Your task to perform on an android device: check android version Image 0: 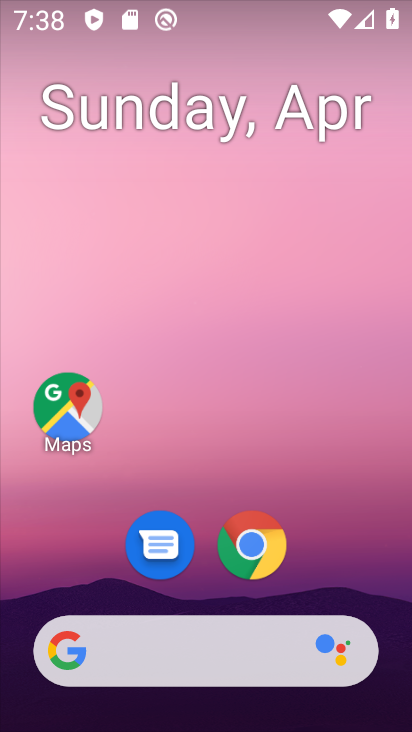
Step 0: drag from (285, 619) to (306, 241)
Your task to perform on an android device: check android version Image 1: 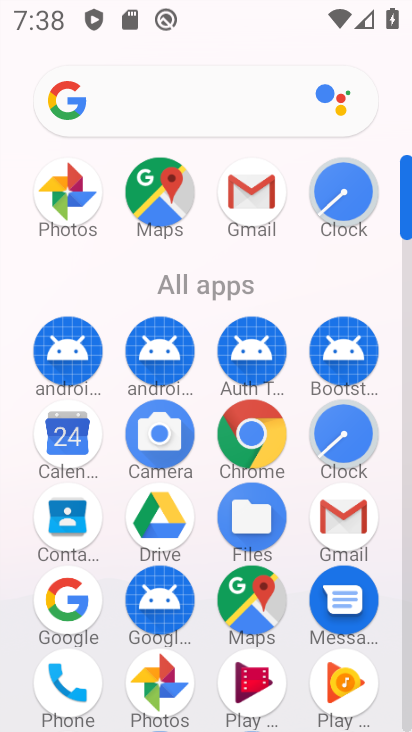
Step 1: click (292, 626)
Your task to perform on an android device: check android version Image 2: 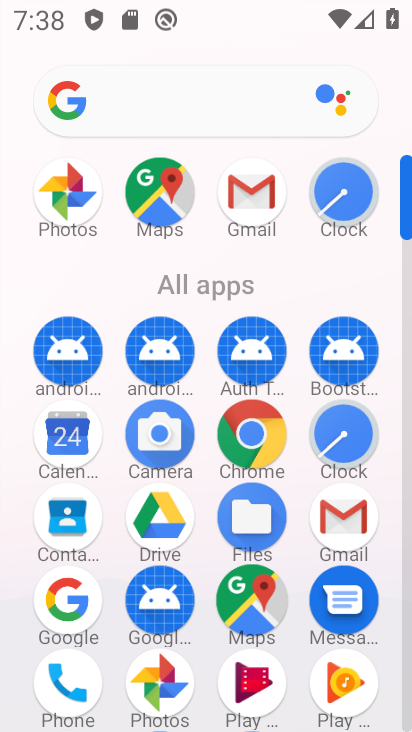
Step 2: drag from (293, 463) to (318, 248)
Your task to perform on an android device: check android version Image 3: 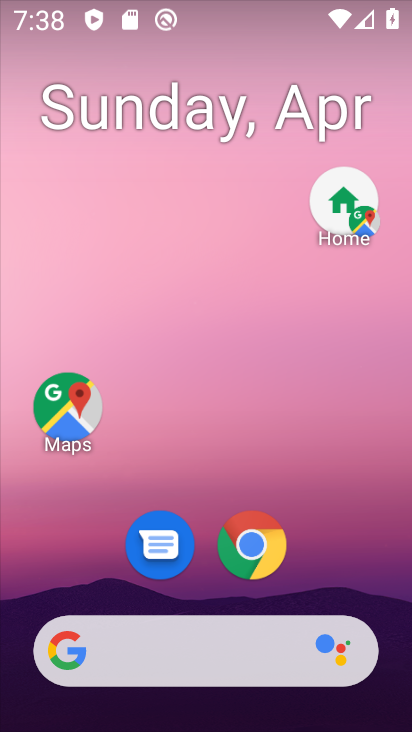
Step 3: drag from (299, 567) to (315, 155)
Your task to perform on an android device: check android version Image 4: 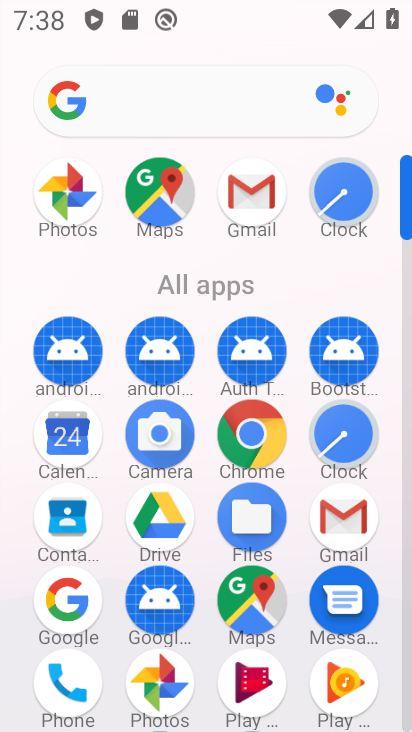
Step 4: drag from (289, 654) to (290, 475)
Your task to perform on an android device: check android version Image 5: 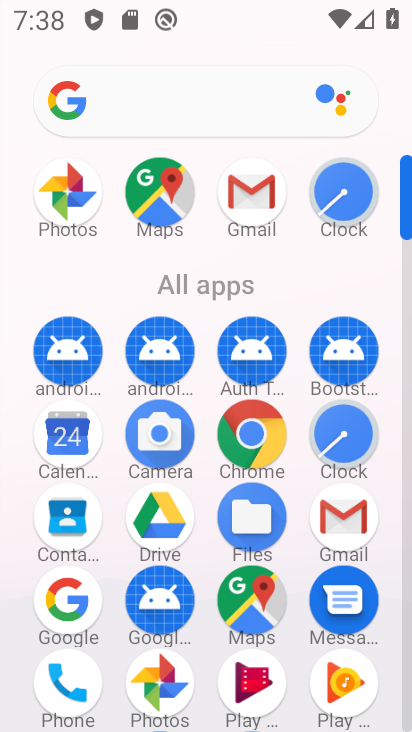
Step 5: click (333, 126)
Your task to perform on an android device: check android version Image 6: 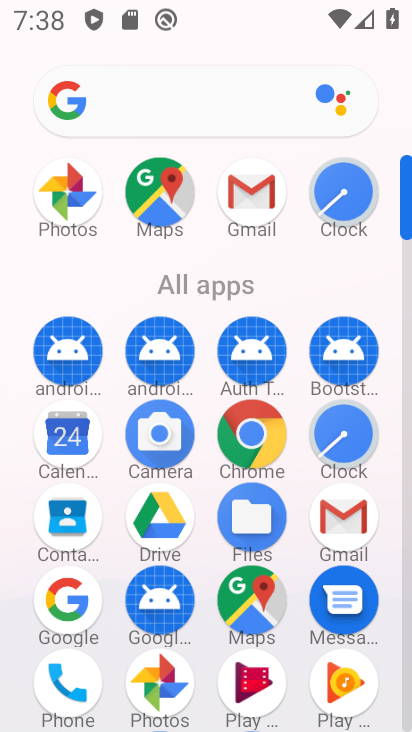
Step 6: drag from (216, 490) to (290, 247)
Your task to perform on an android device: check android version Image 7: 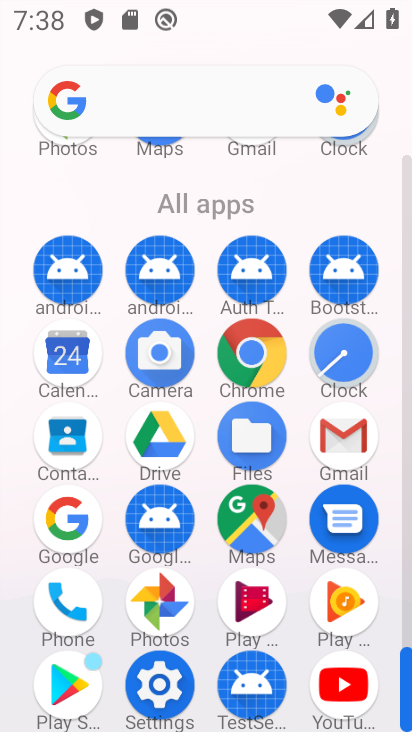
Step 7: click (156, 681)
Your task to perform on an android device: check android version Image 8: 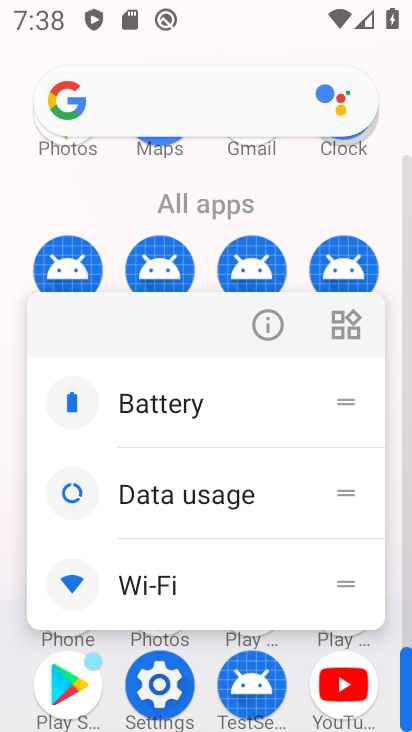
Step 8: click (151, 681)
Your task to perform on an android device: check android version Image 9: 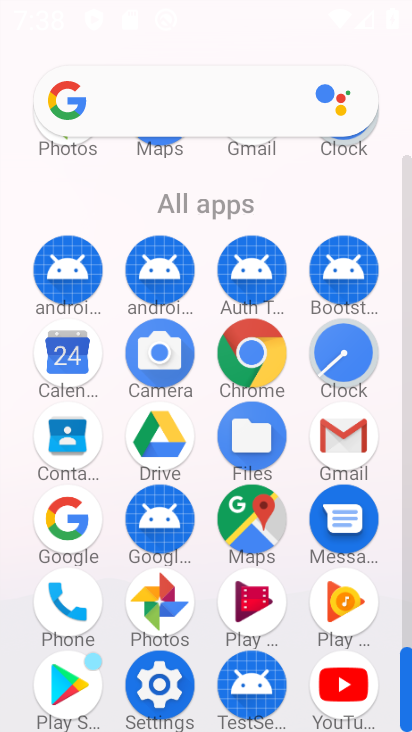
Step 9: click (151, 681)
Your task to perform on an android device: check android version Image 10: 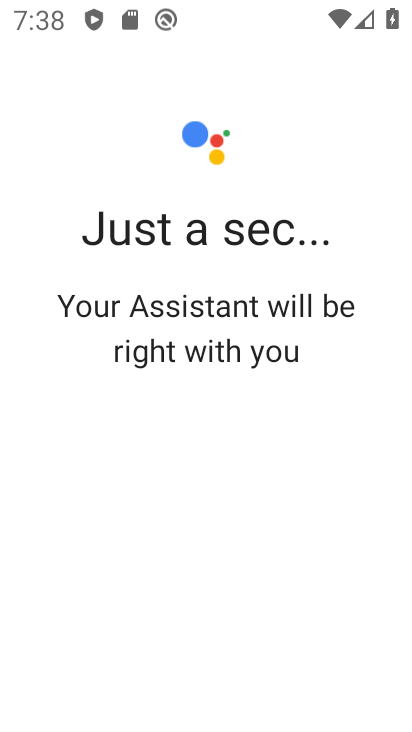
Step 10: click (379, 89)
Your task to perform on an android device: check android version Image 11: 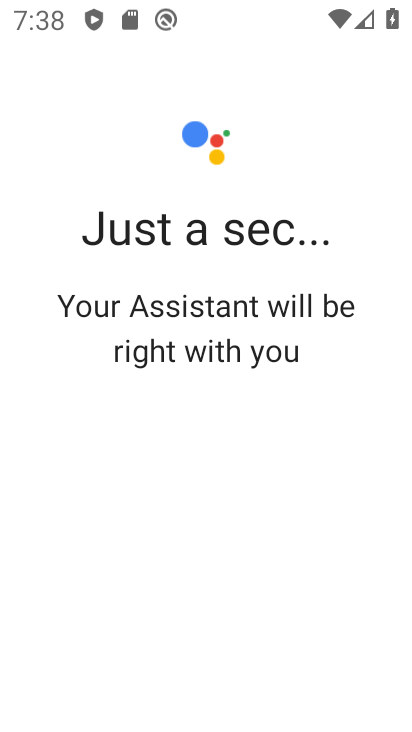
Step 11: press back button
Your task to perform on an android device: check android version Image 12: 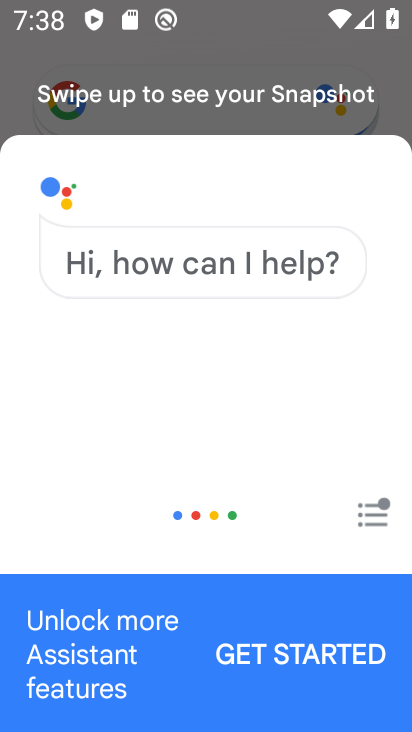
Step 12: press back button
Your task to perform on an android device: check android version Image 13: 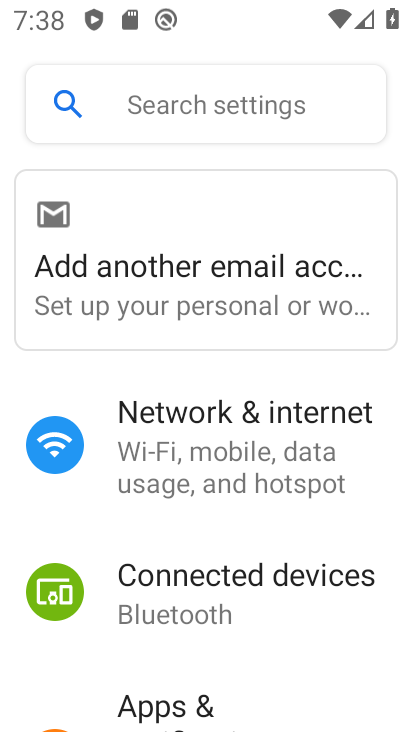
Step 13: click (267, 663)
Your task to perform on an android device: check android version Image 14: 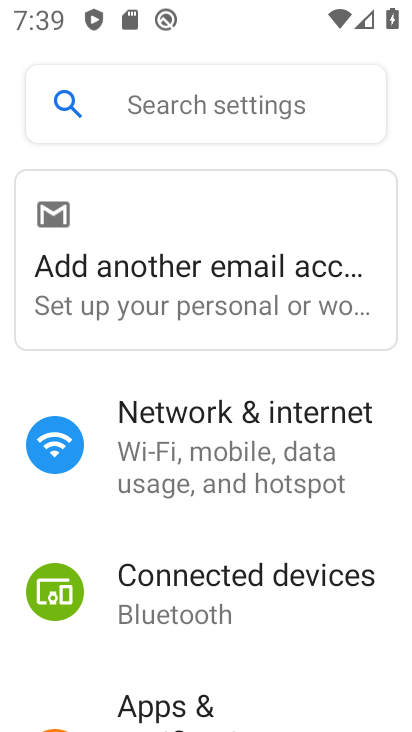
Step 14: drag from (319, 13) to (318, 210)
Your task to perform on an android device: check android version Image 15: 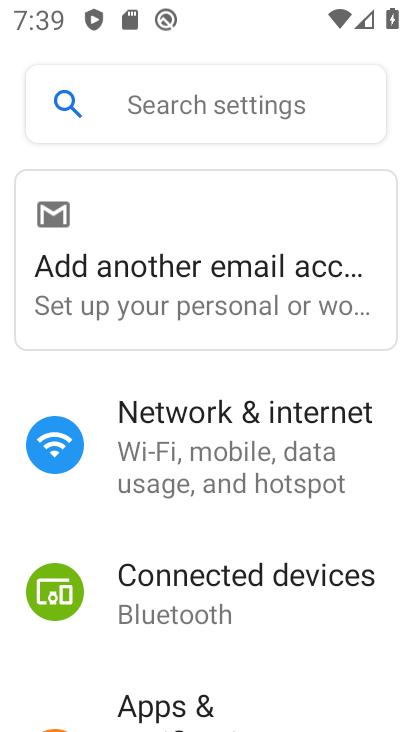
Step 15: drag from (312, 656) to (411, 82)
Your task to perform on an android device: check android version Image 16: 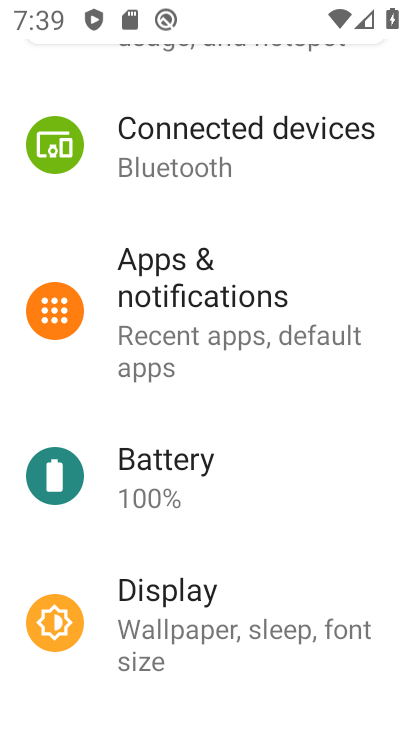
Step 16: click (207, 595)
Your task to perform on an android device: check android version Image 17: 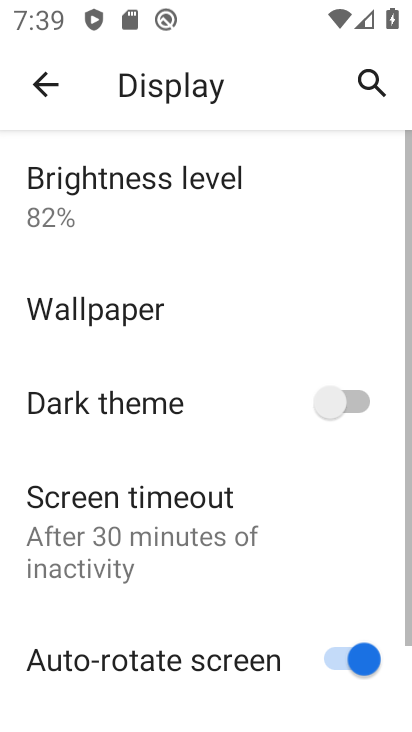
Step 17: drag from (299, 541) to (330, 343)
Your task to perform on an android device: check android version Image 18: 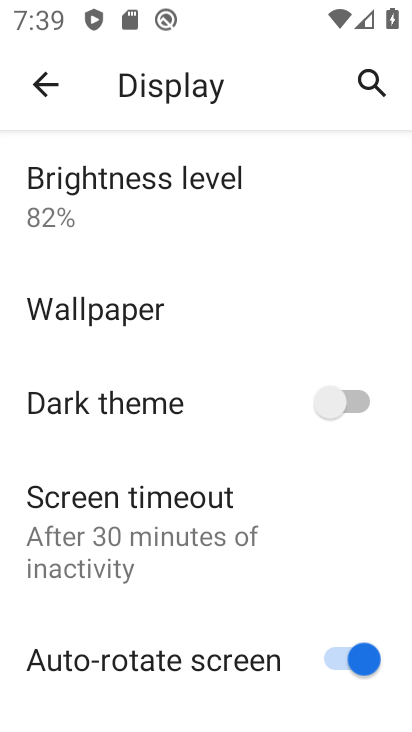
Step 18: press back button
Your task to perform on an android device: check android version Image 19: 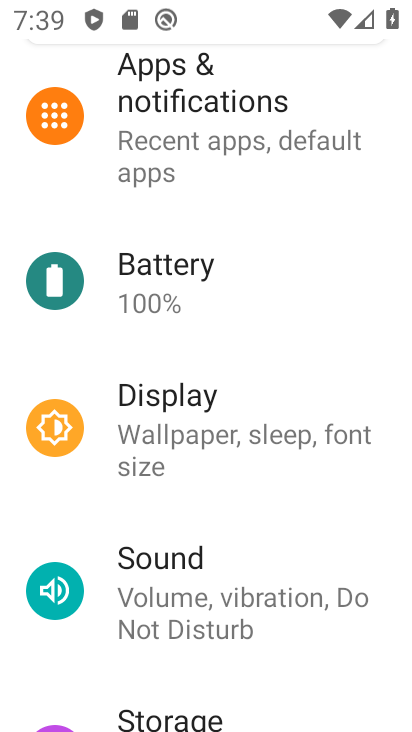
Step 19: click (210, 584)
Your task to perform on an android device: check android version Image 20: 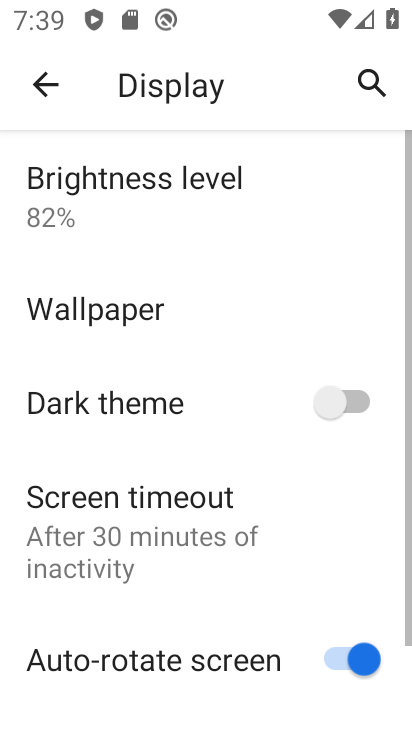
Step 20: click (311, 24)
Your task to perform on an android device: check android version Image 21: 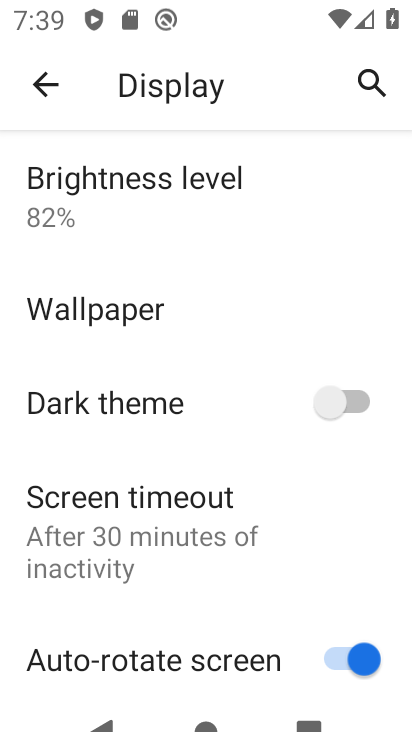
Step 21: press back button
Your task to perform on an android device: check android version Image 22: 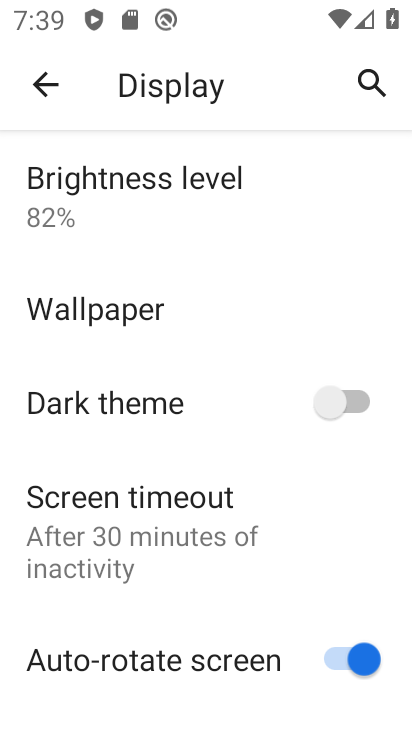
Step 22: press back button
Your task to perform on an android device: check android version Image 23: 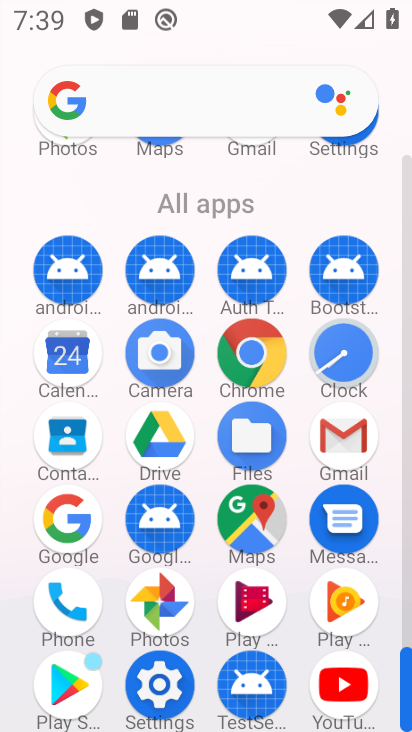
Step 23: click (155, 675)
Your task to perform on an android device: check android version Image 24: 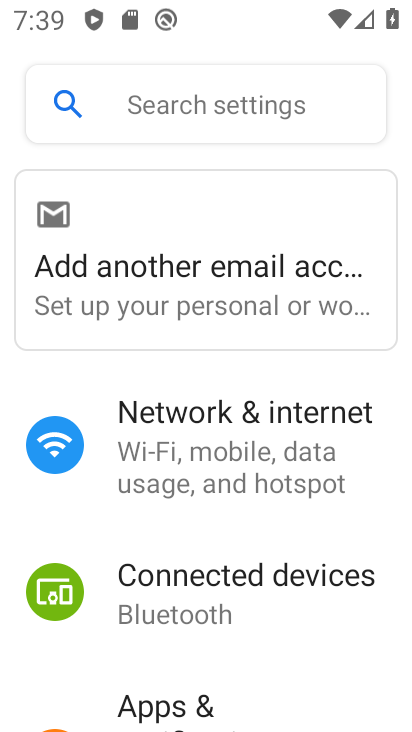
Step 24: drag from (269, 663) to (306, 482)
Your task to perform on an android device: check android version Image 25: 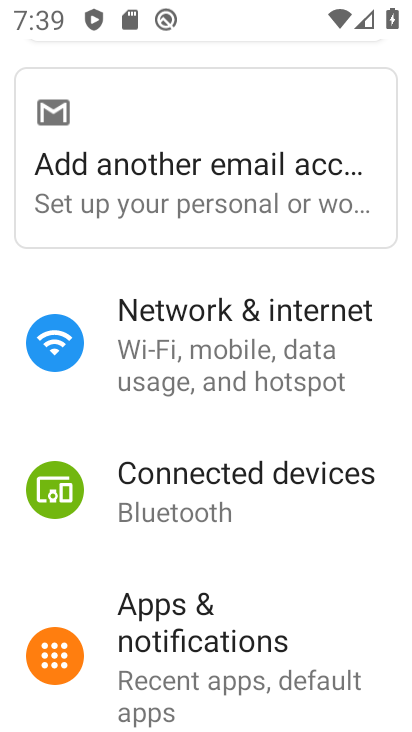
Step 25: click (355, 55)
Your task to perform on an android device: check android version Image 26: 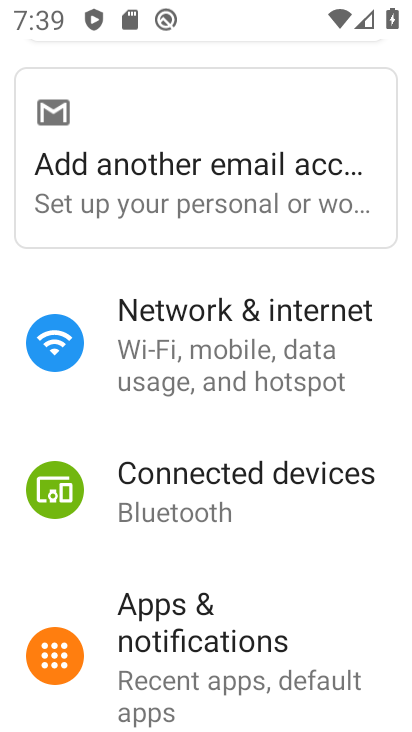
Step 26: drag from (321, 663) to (356, 330)
Your task to perform on an android device: check android version Image 27: 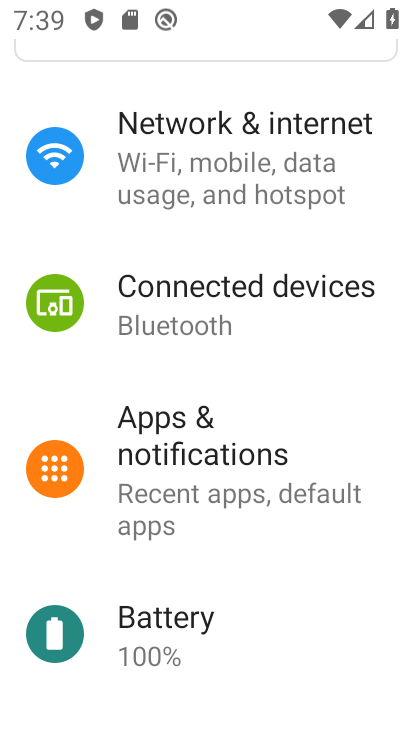
Step 27: click (360, 56)
Your task to perform on an android device: check android version Image 28: 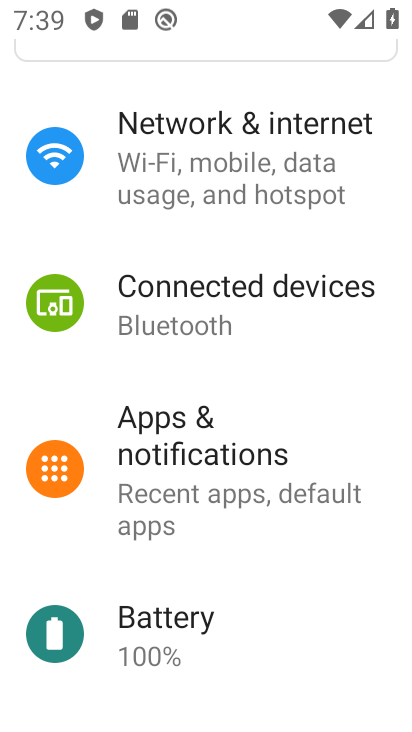
Step 28: drag from (187, 668) to (222, 196)
Your task to perform on an android device: check android version Image 29: 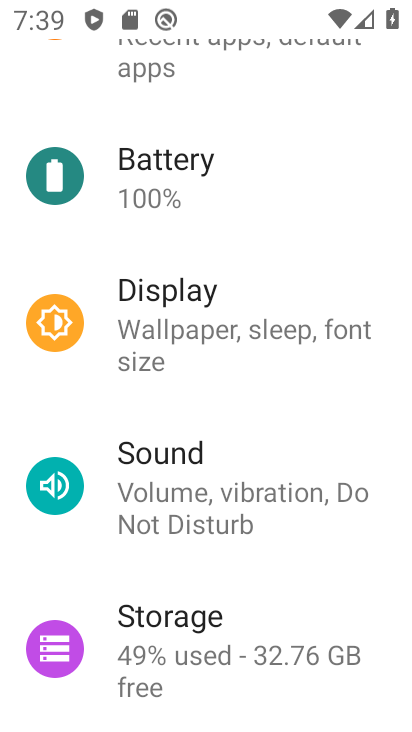
Step 29: click (148, 684)
Your task to perform on an android device: check android version Image 30: 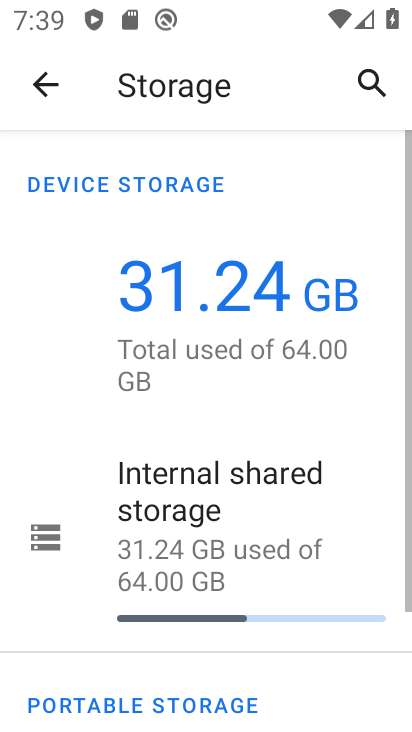
Step 30: click (304, 27)
Your task to perform on an android device: check android version Image 31: 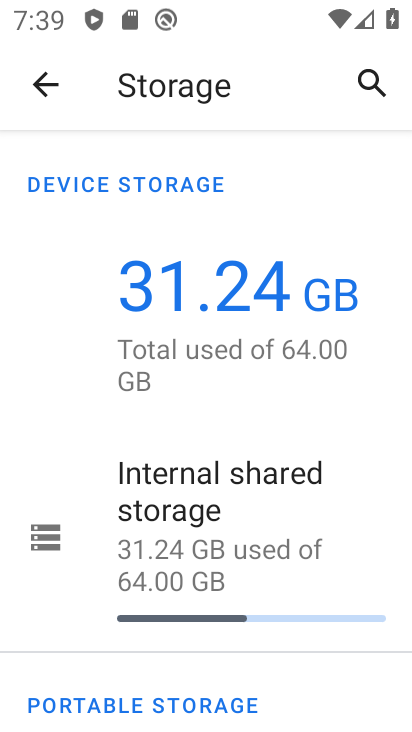
Step 31: press back button
Your task to perform on an android device: check android version Image 32: 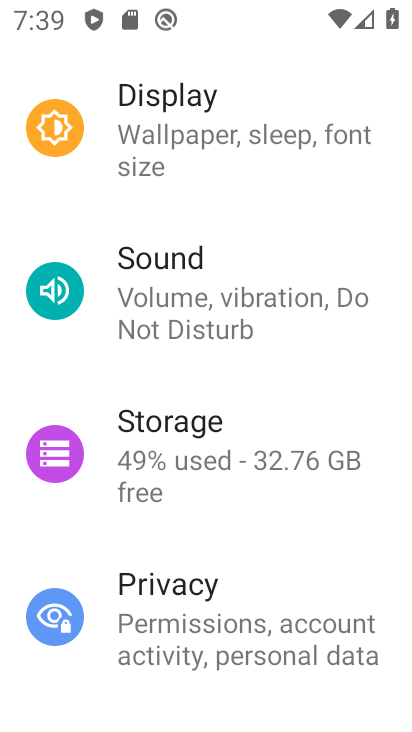
Step 32: click (293, 671)
Your task to perform on an android device: check android version Image 33: 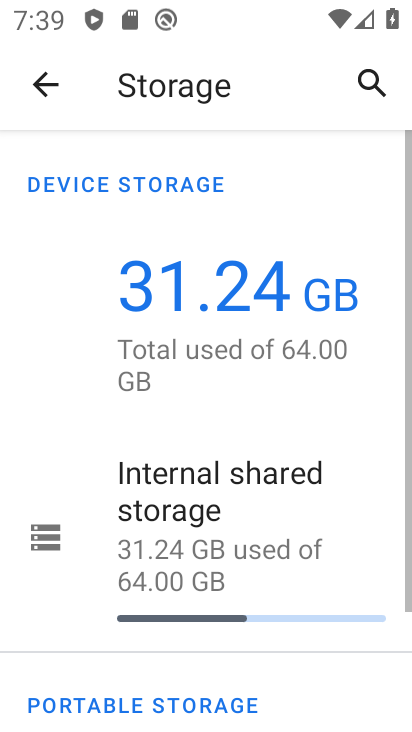
Step 33: click (353, 101)
Your task to perform on an android device: check android version Image 34: 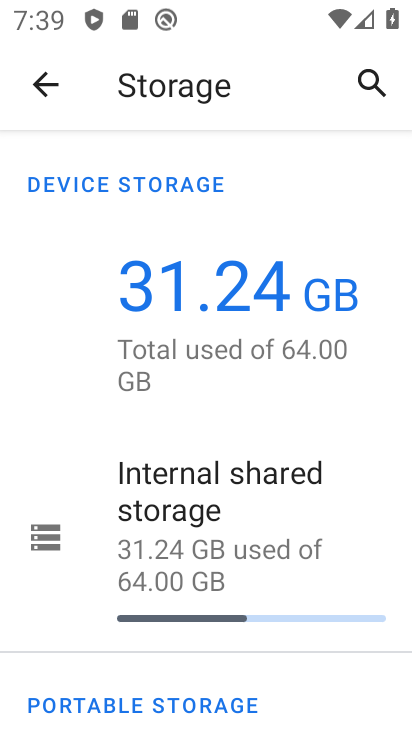
Step 34: press back button
Your task to perform on an android device: check android version Image 35: 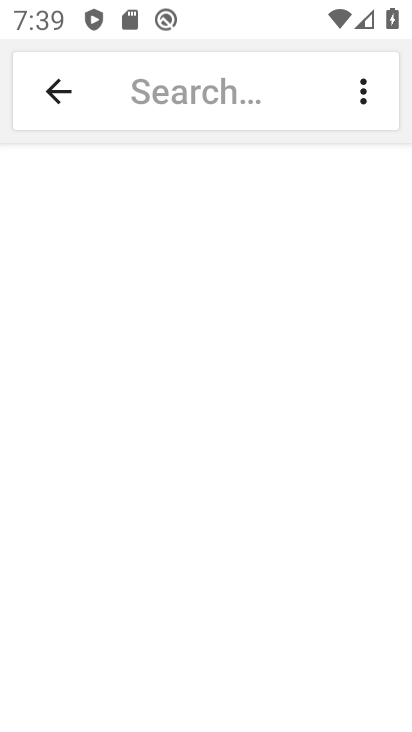
Step 35: press back button
Your task to perform on an android device: check android version Image 36: 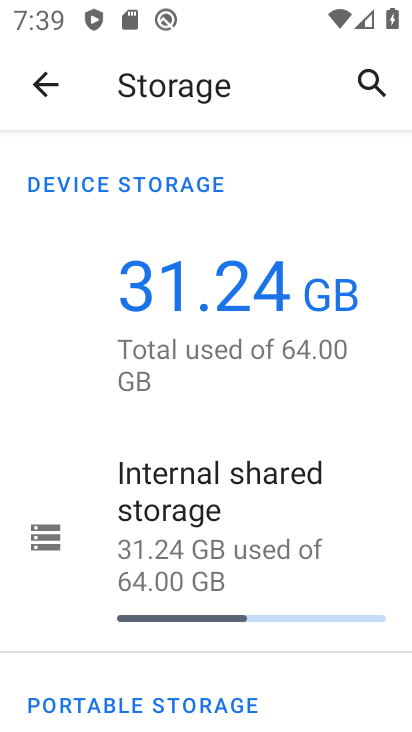
Step 36: press back button
Your task to perform on an android device: check android version Image 37: 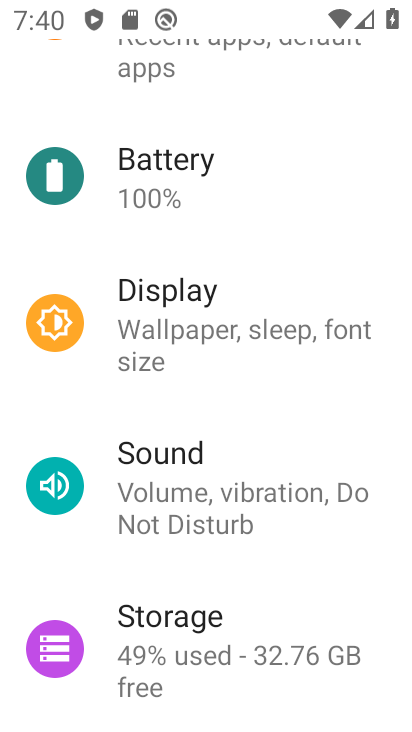
Step 37: click (137, 678)
Your task to perform on an android device: check android version Image 38: 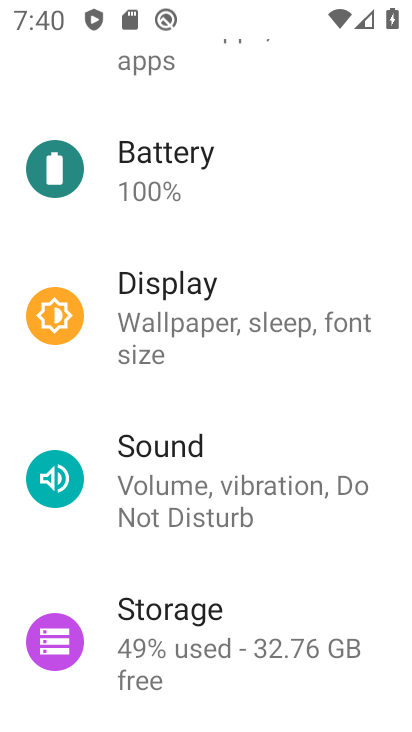
Step 38: click (289, 72)
Your task to perform on an android device: check android version Image 39: 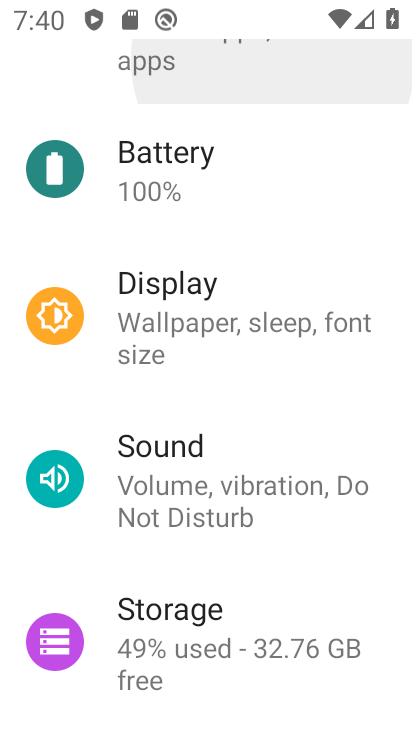
Step 39: drag from (247, 549) to (284, 202)
Your task to perform on an android device: check android version Image 40: 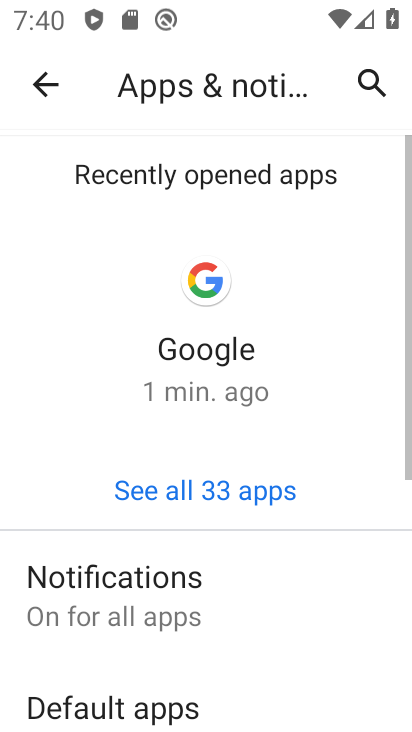
Step 40: press back button
Your task to perform on an android device: check android version Image 41: 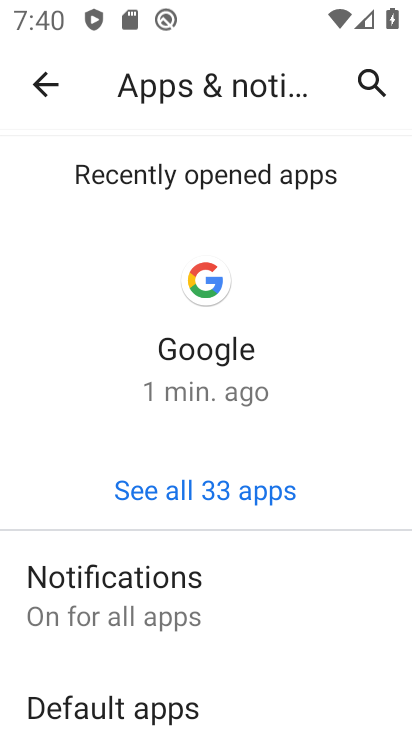
Step 41: press back button
Your task to perform on an android device: check android version Image 42: 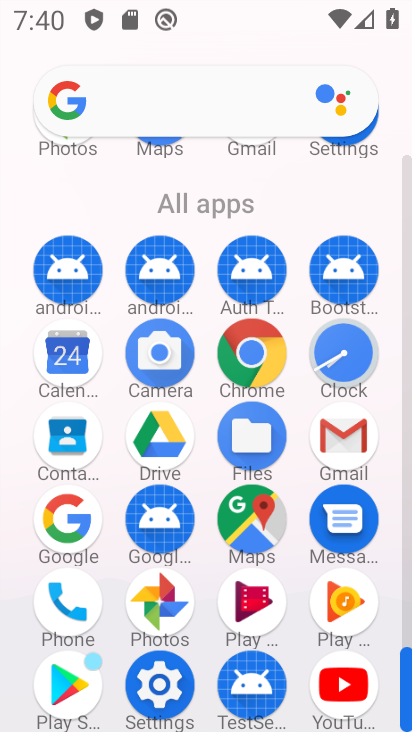
Step 42: drag from (212, 665) to (265, 437)
Your task to perform on an android device: check android version Image 43: 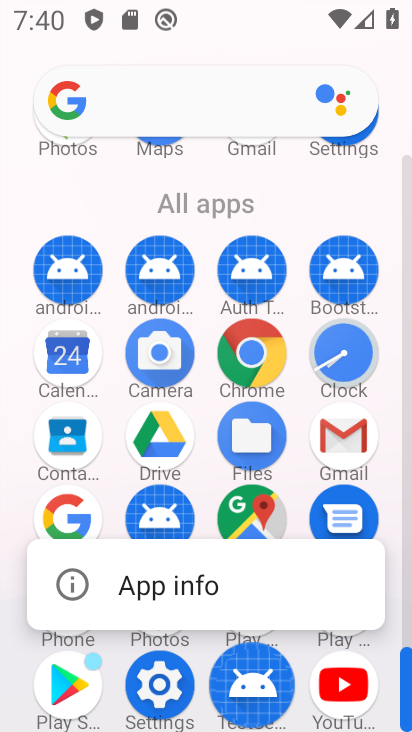
Step 43: click (160, 680)
Your task to perform on an android device: check android version Image 44: 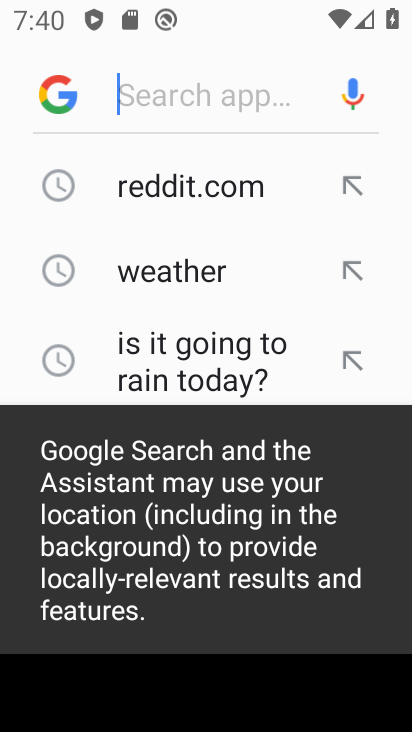
Step 44: press back button
Your task to perform on an android device: check android version Image 45: 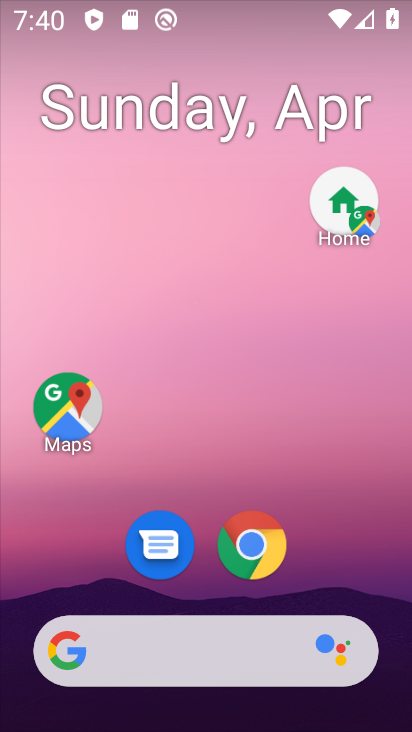
Step 45: drag from (255, 638) to (252, 134)
Your task to perform on an android device: check android version Image 46: 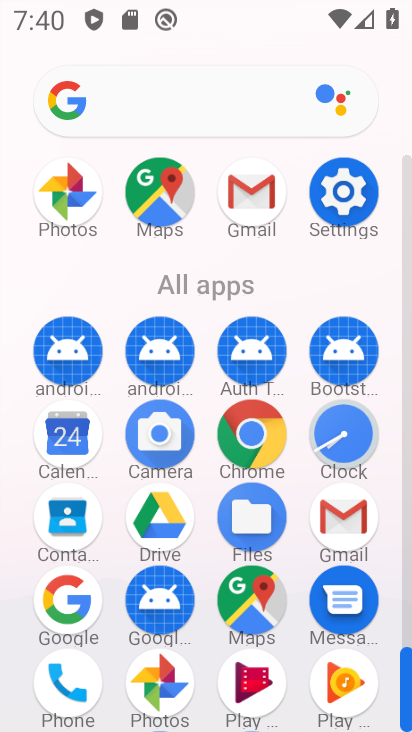
Step 46: click (334, 186)
Your task to perform on an android device: check android version Image 47: 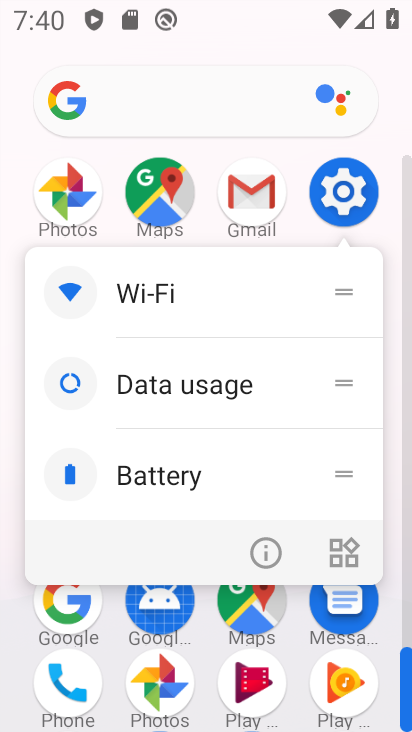
Step 47: click (334, 186)
Your task to perform on an android device: check android version Image 48: 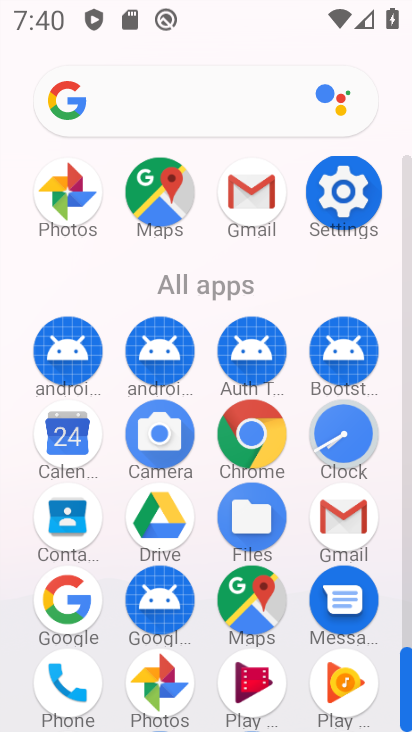
Step 48: click (329, 178)
Your task to perform on an android device: check android version Image 49: 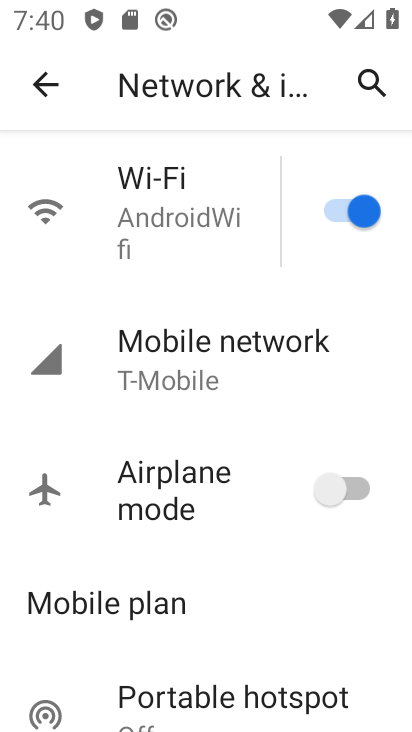
Step 49: press back button
Your task to perform on an android device: check android version Image 50: 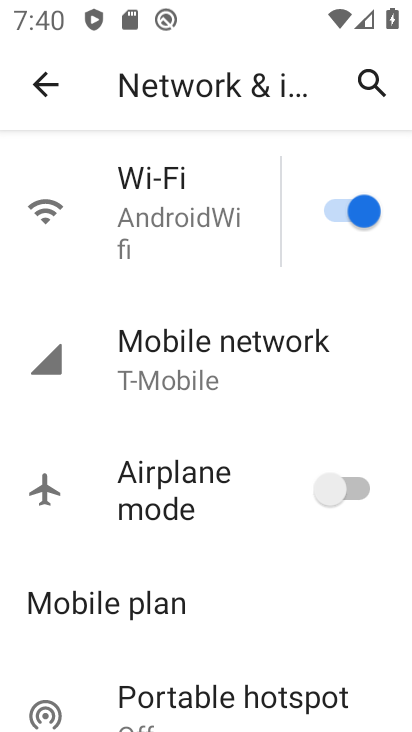
Step 50: press back button
Your task to perform on an android device: check android version Image 51: 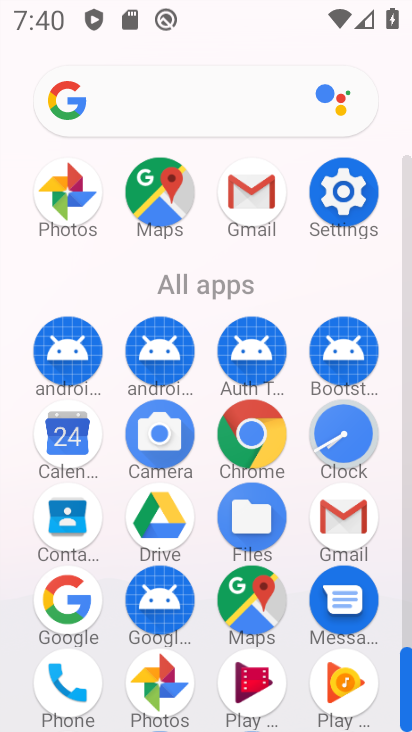
Step 51: click (355, 186)
Your task to perform on an android device: check android version Image 52: 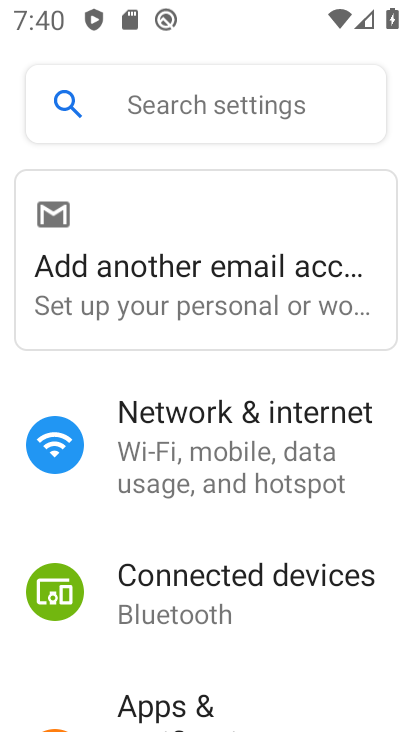
Step 52: click (209, 86)
Your task to perform on an android device: check android version Image 53: 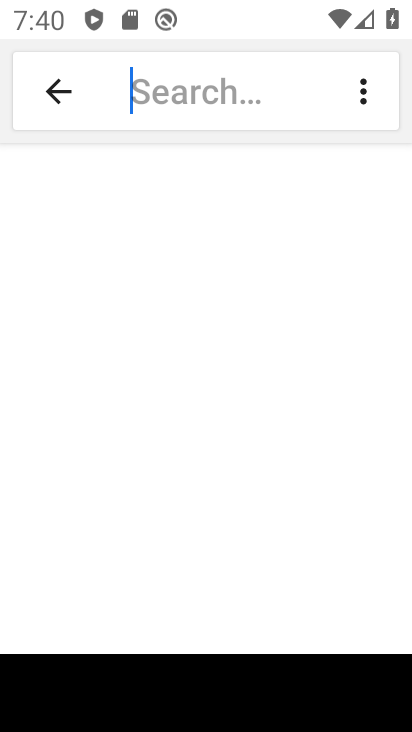
Step 53: type " android version"
Your task to perform on an android device: check android version Image 54: 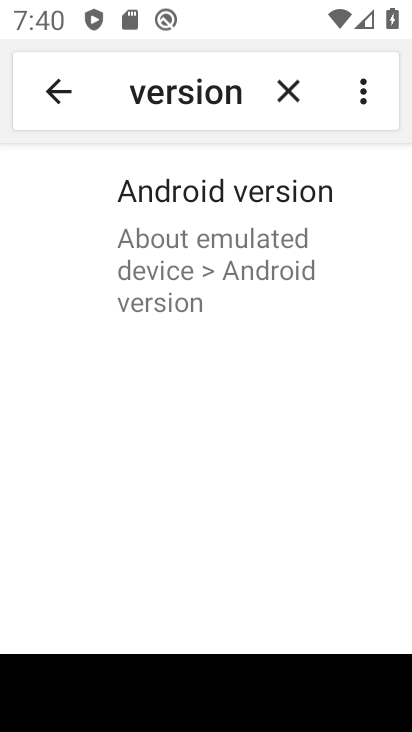
Step 54: click (194, 243)
Your task to perform on an android device: check android version Image 55: 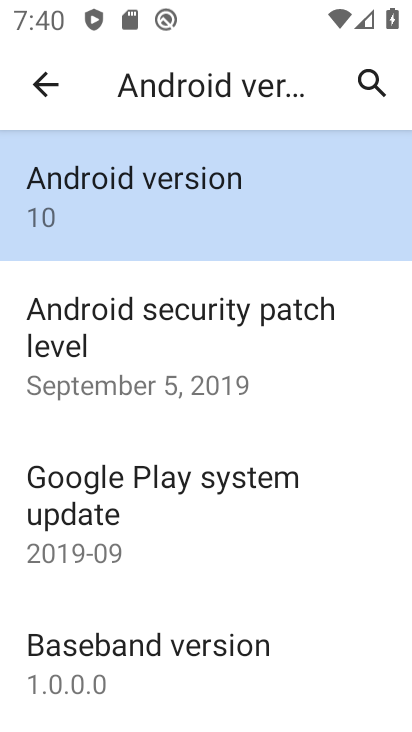
Step 55: task complete